Your task to perform on an android device: Go to eBay Image 0: 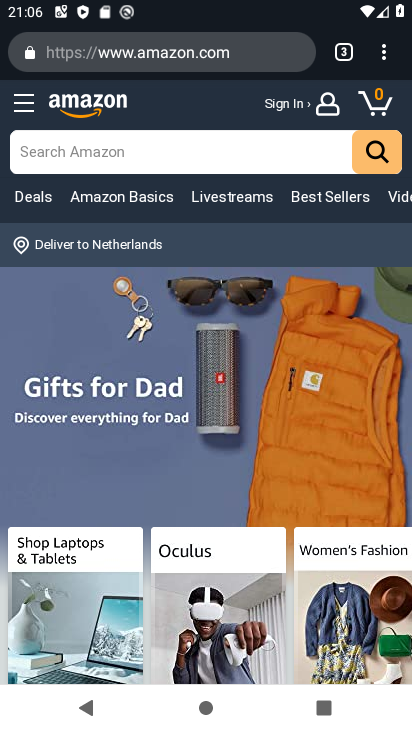
Step 0: press home button
Your task to perform on an android device: Go to eBay Image 1: 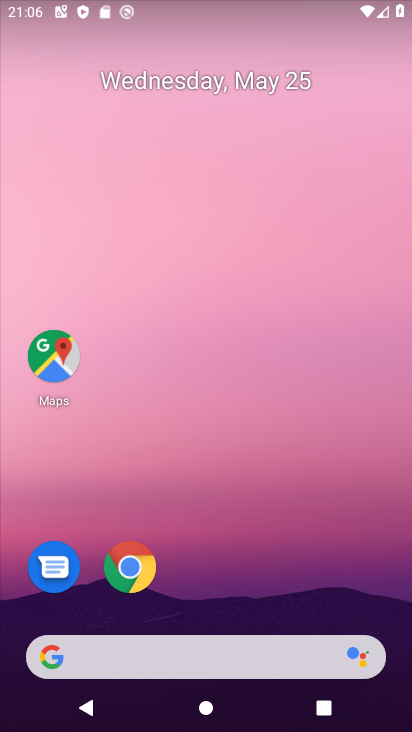
Step 1: click (262, 667)
Your task to perform on an android device: Go to eBay Image 2: 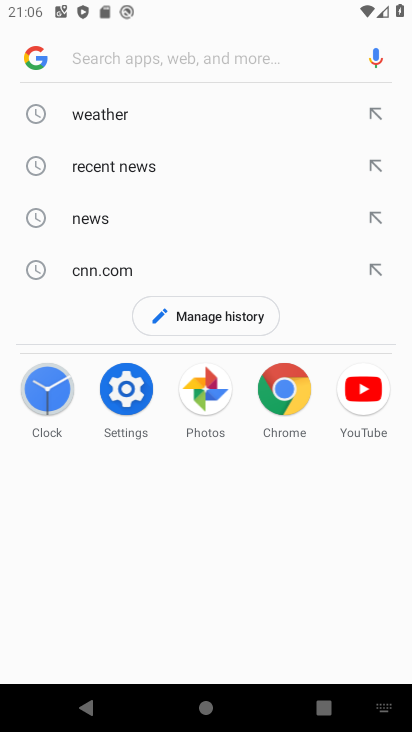
Step 2: type "ebay"
Your task to perform on an android device: Go to eBay Image 3: 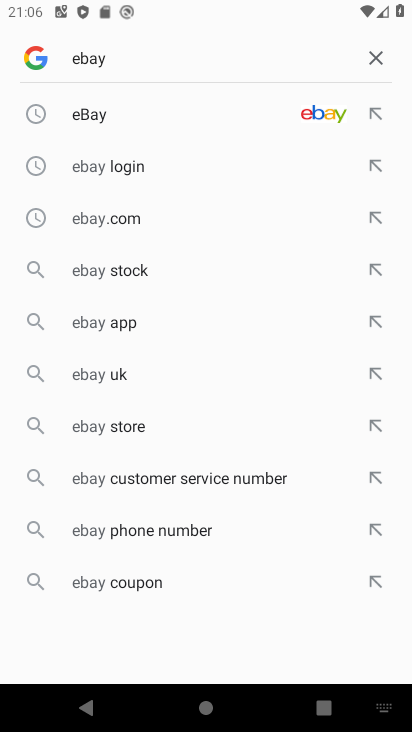
Step 3: click (87, 116)
Your task to perform on an android device: Go to eBay Image 4: 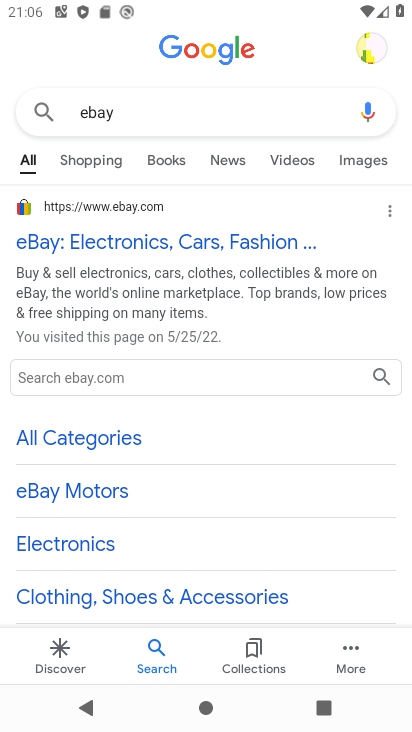
Step 4: click (53, 249)
Your task to perform on an android device: Go to eBay Image 5: 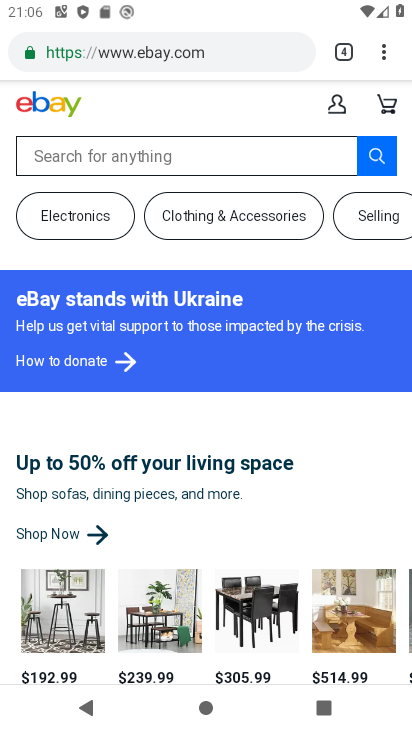
Step 5: task complete